Your task to perform on an android device: change notifications settings Image 0: 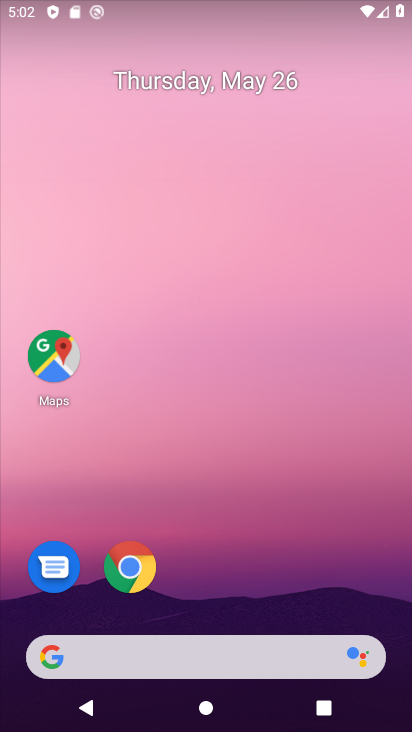
Step 0: drag from (275, 598) to (238, 193)
Your task to perform on an android device: change notifications settings Image 1: 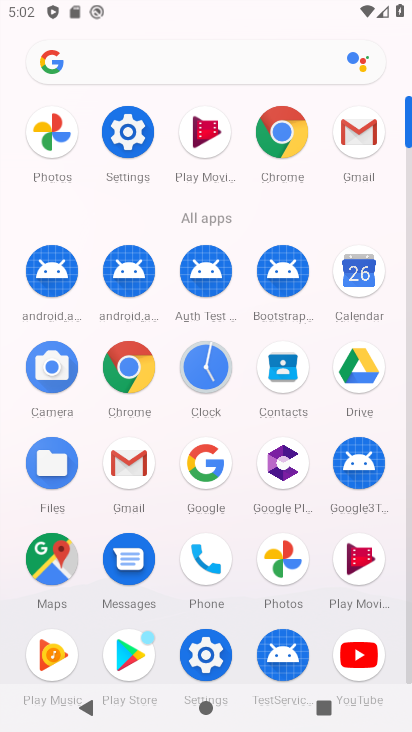
Step 1: click (115, 140)
Your task to perform on an android device: change notifications settings Image 2: 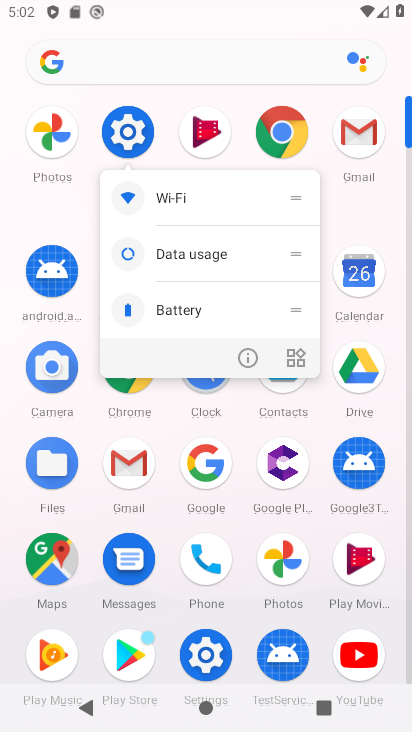
Step 2: click (125, 131)
Your task to perform on an android device: change notifications settings Image 3: 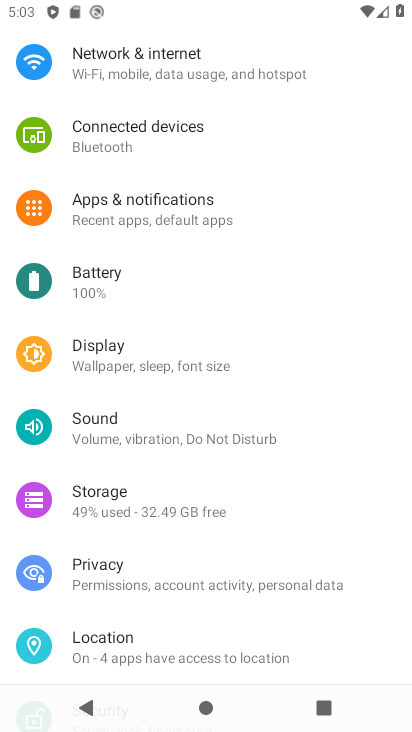
Step 3: click (134, 200)
Your task to perform on an android device: change notifications settings Image 4: 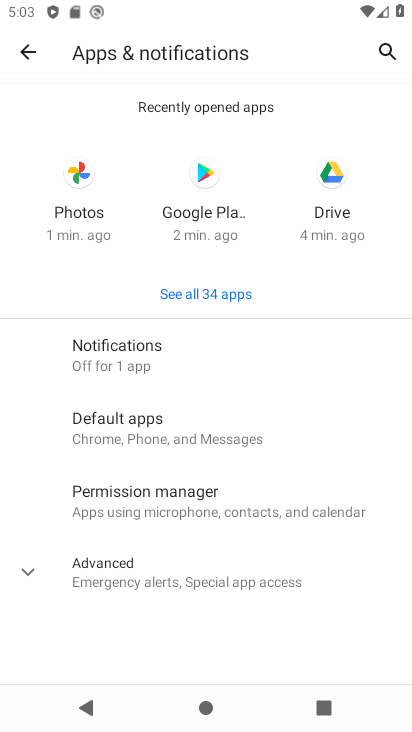
Step 4: click (105, 357)
Your task to perform on an android device: change notifications settings Image 5: 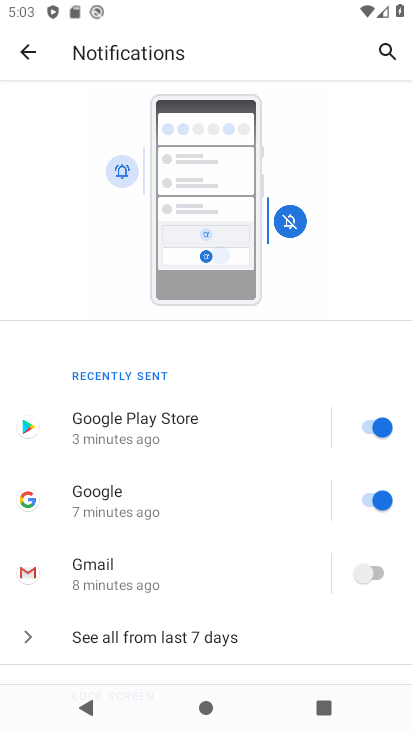
Step 5: click (381, 424)
Your task to perform on an android device: change notifications settings Image 6: 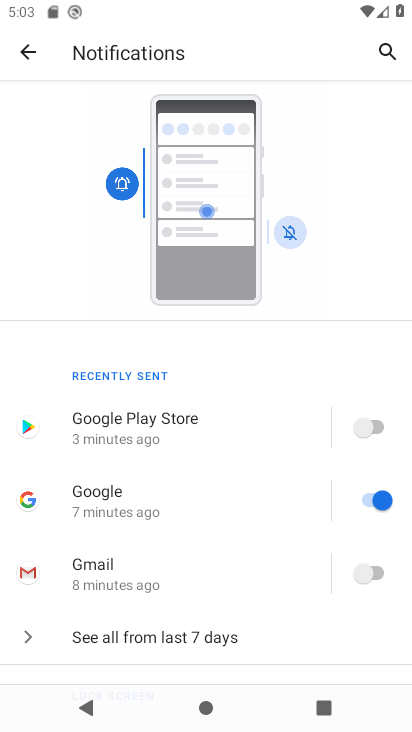
Step 6: task complete